Your task to perform on an android device: toggle data saver in the chrome app Image 0: 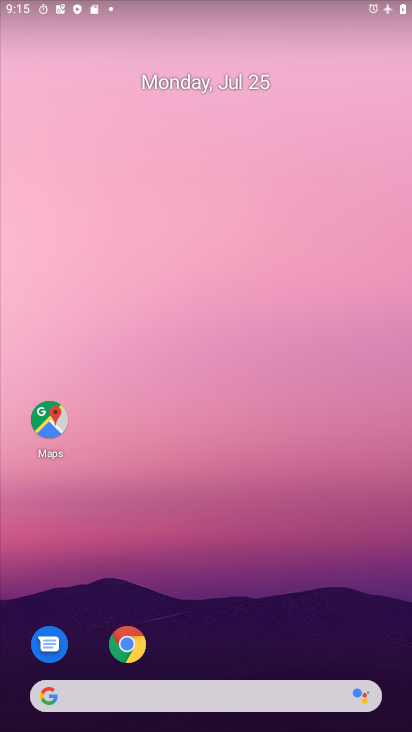
Step 0: drag from (296, 626) to (309, 107)
Your task to perform on an android device: toggle data saver in the chrome app Image 1: 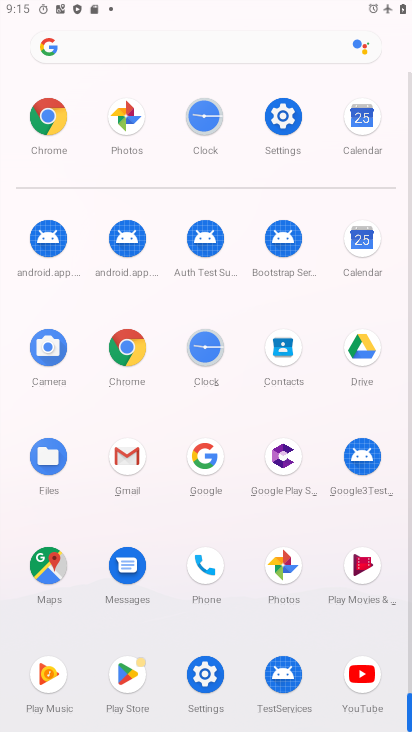
Step 1: click (125, 357)
Your task to perform on an android device: toggle data saver in the chrome app Image 2: 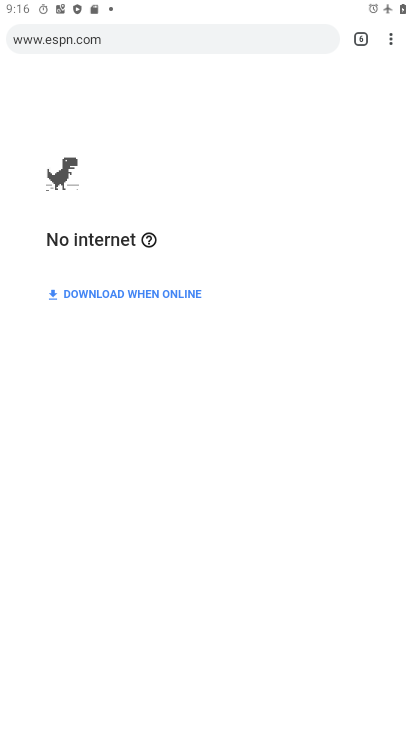
Step 2: click (392, 37)
Your task to perform on an android device: toggle data saver in the chrome app Image 3: 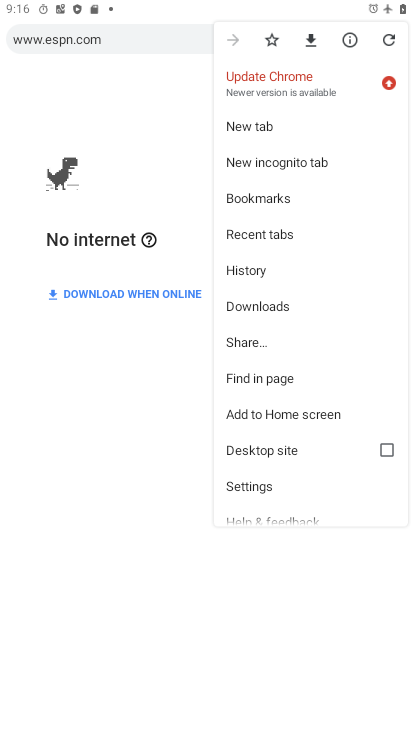
Step 3: click (263, 481)
Your task to perform on an android device: toggle data saver in the chrome app Image 4: 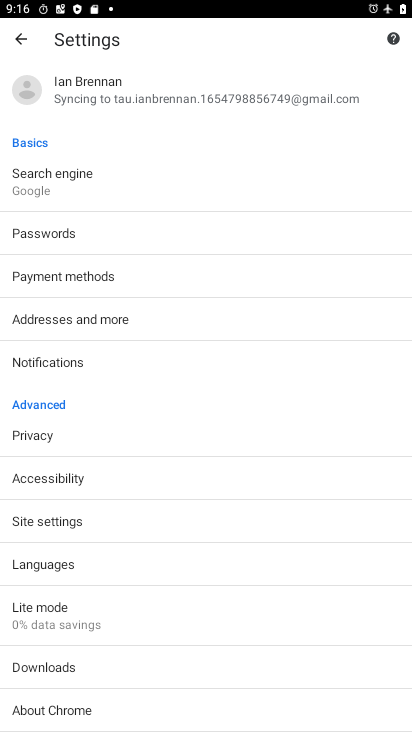
Step 4: click (109, 625)
Your task to perform on an android device: toggle data saver in the chrome app Image 5: 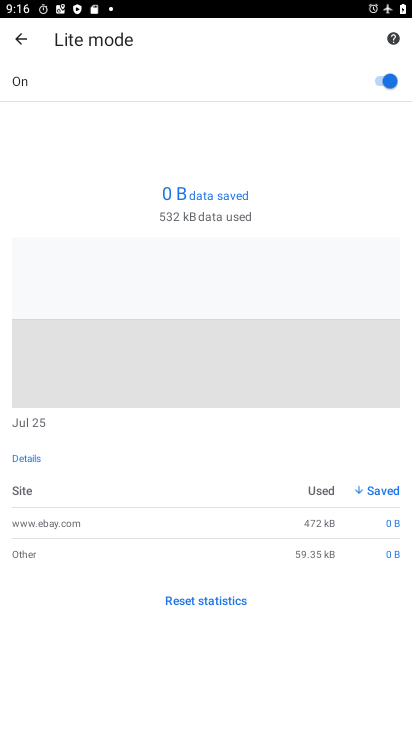
Step 5: click (382, 77)
Your task to perform on an android device: toggle data saver in the chrome app Image 6: 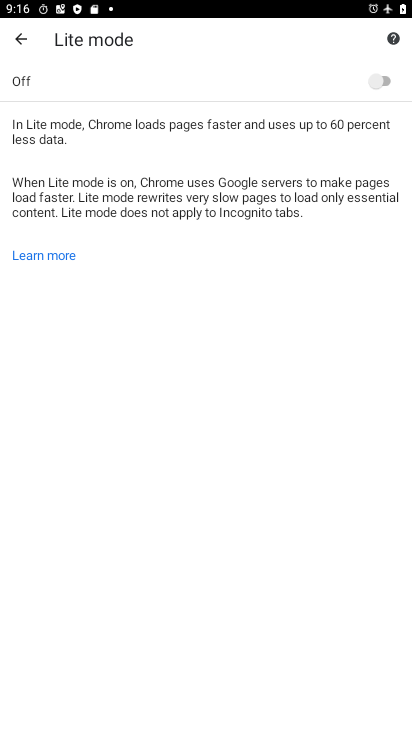
Step 6: task complete